Your task to perform on an android device: delete a single message in the gmail app Image 0: 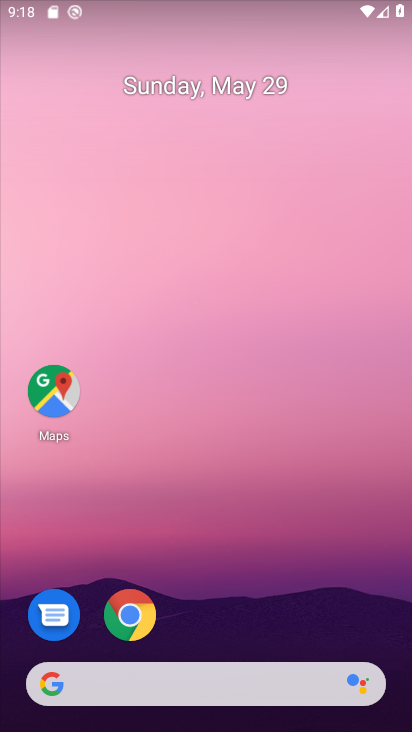
Step 0: drag from (265, 640) to (311, 3)
Your task to perform on an android device: delete a single message in the gmail app Image 1: 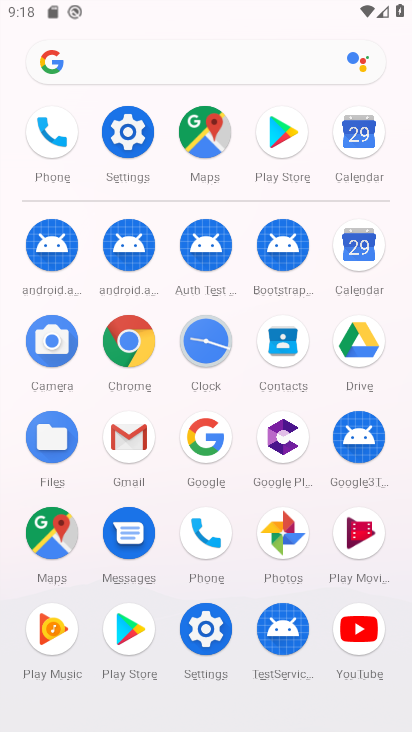
Step 1: click (133, 446)
Your task to perform on an android device: delete a single message in the gmail app Image 2: 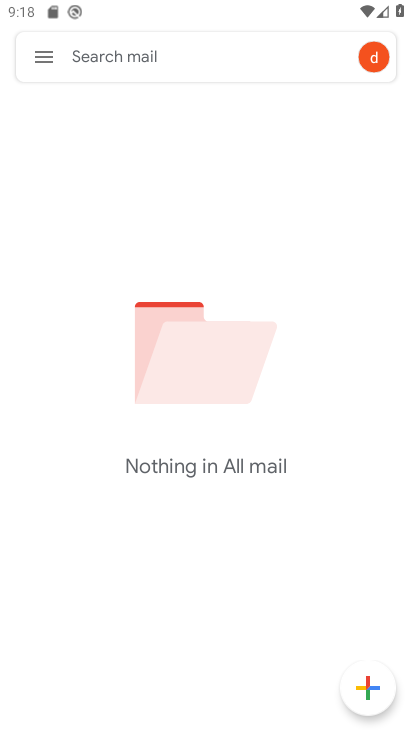
Step 2: click (48, 63)
Your task to perform on an android device: delete a single message in the gmail app Image 3: 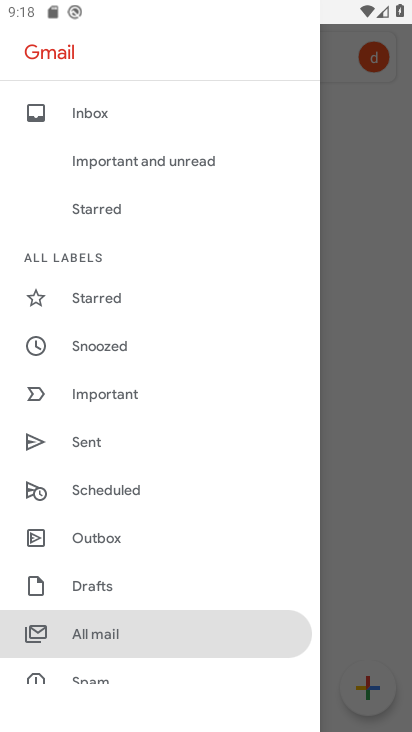
Step 3: click (96, 626)
Your task to perform on an android device: delete a single message in the gmail app Image 4: 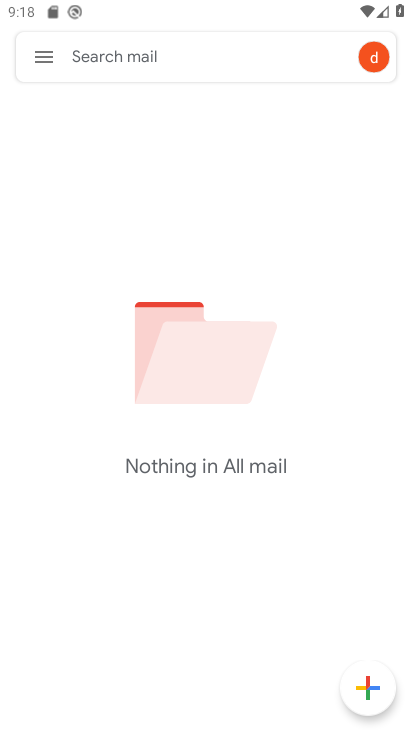
Step 4: task complete